Your task to perform on an android device: Search for sushi restaurants on Maps Image 0: 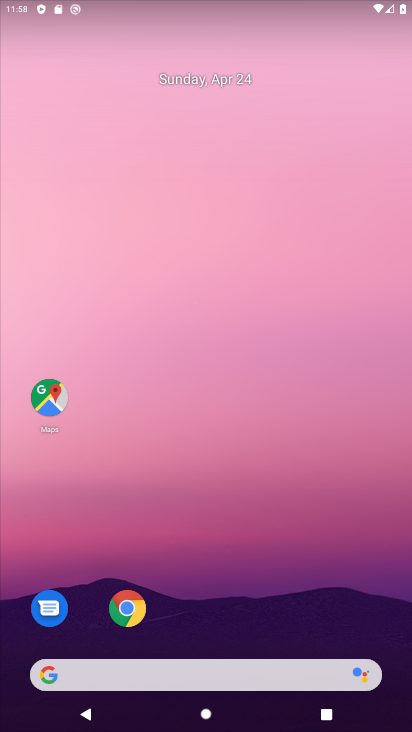
Step 0: drag from (220, 729) to (225, 163)
Your task to perform on an android device: Search for sushi restaurants on Maps Image 1: 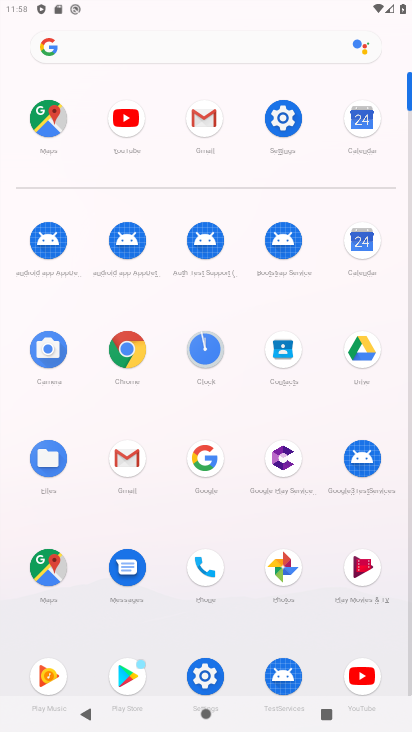
Step 1: click (45, 559)
Your task to perform on an android device: Search for sushi restaurants on Maps Image 2: 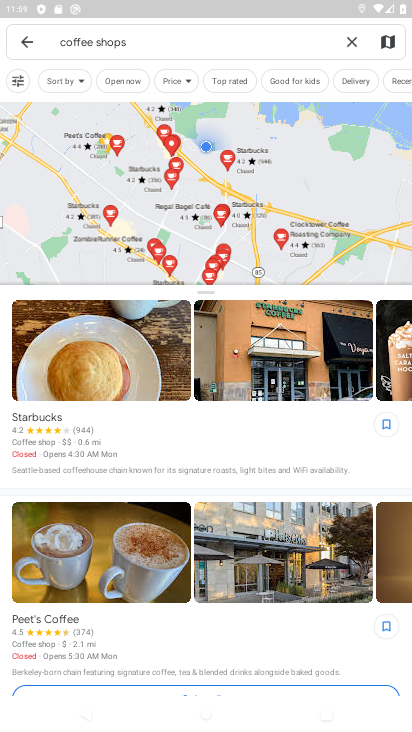
Step 2: click (279, 33)
Your task to perform on an android device: Search for sushi restaurants on Maps Image 3: 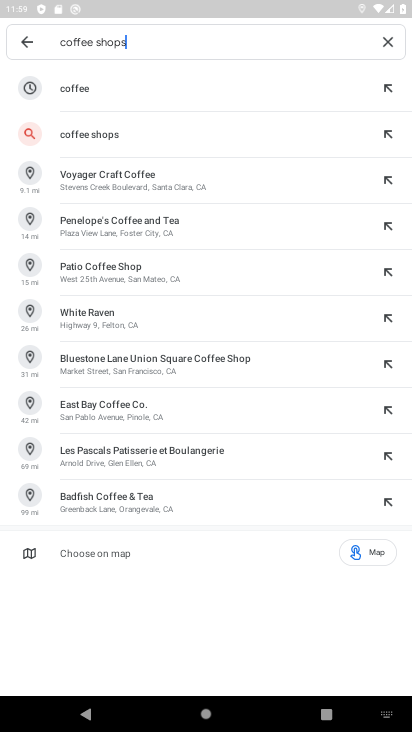
Step 3: click (380, 35)
Your task to perform on an android device: Search for sushi restaurants on Maps Image 4: 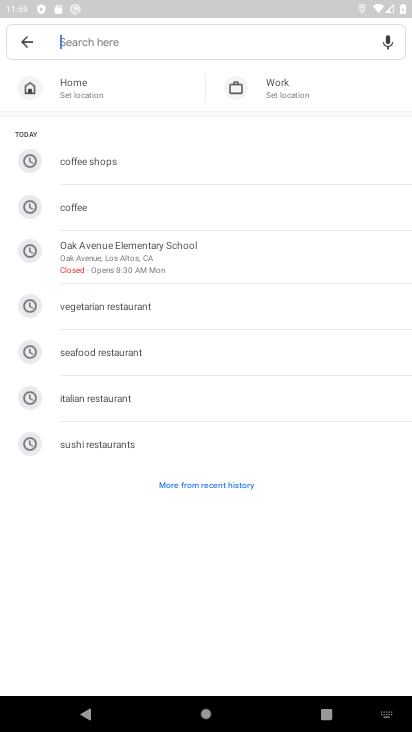
Step 4: click (151, 32)
Your task to perform on an android device: Search for sushi restaurants on Maps Image 5: 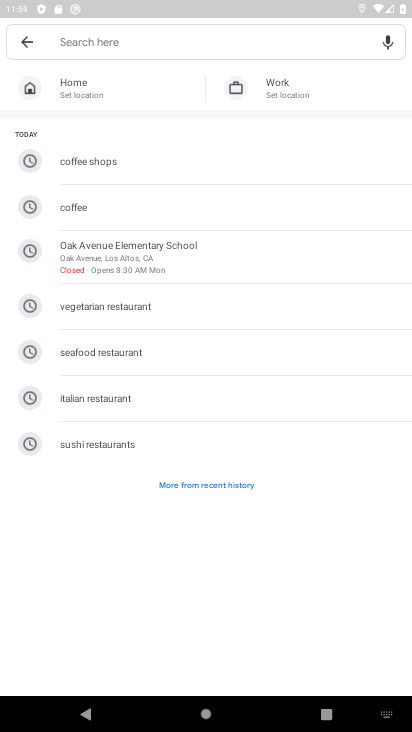
Step 5: type "sushi restaurants"
Your task to perform on an android device: Search for sushi restaurants on Maps Image 6: 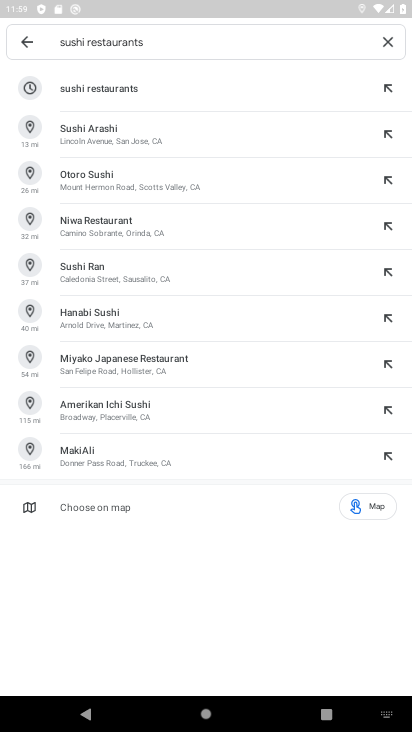
Step 6: click (127, 91)
Your task to perform on an android device: Search for sushi restaurants on Maps Image 7: 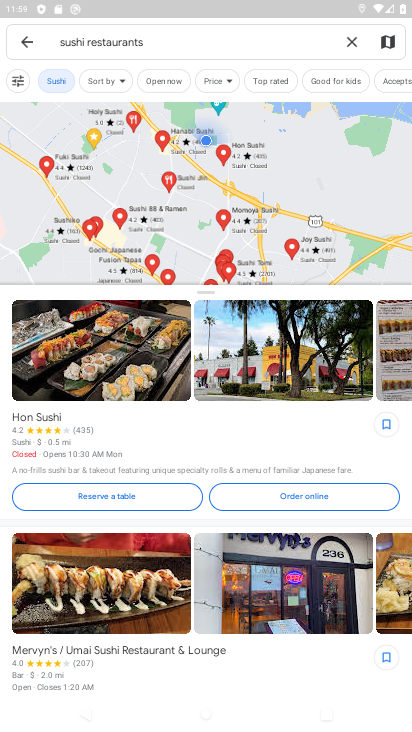
Step 7: task complete